Your task to perform on an android device: Search for the new nike air max 270 on Nike.com Image 0: 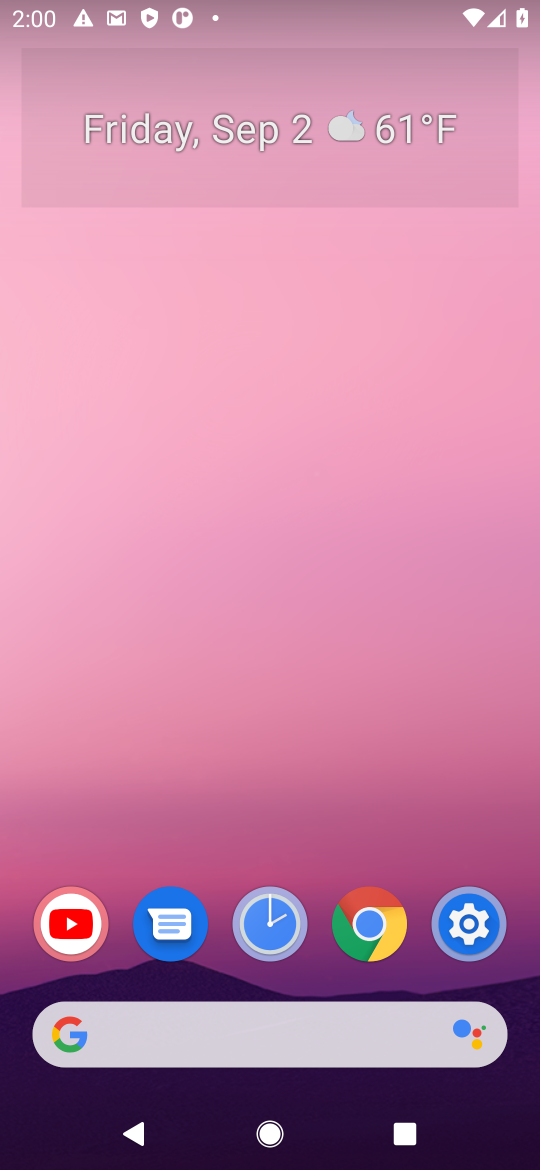
Step 0: press home button
Your task to perform on an android device: Search for the new nike air max 270 on Nike.com Image 1: 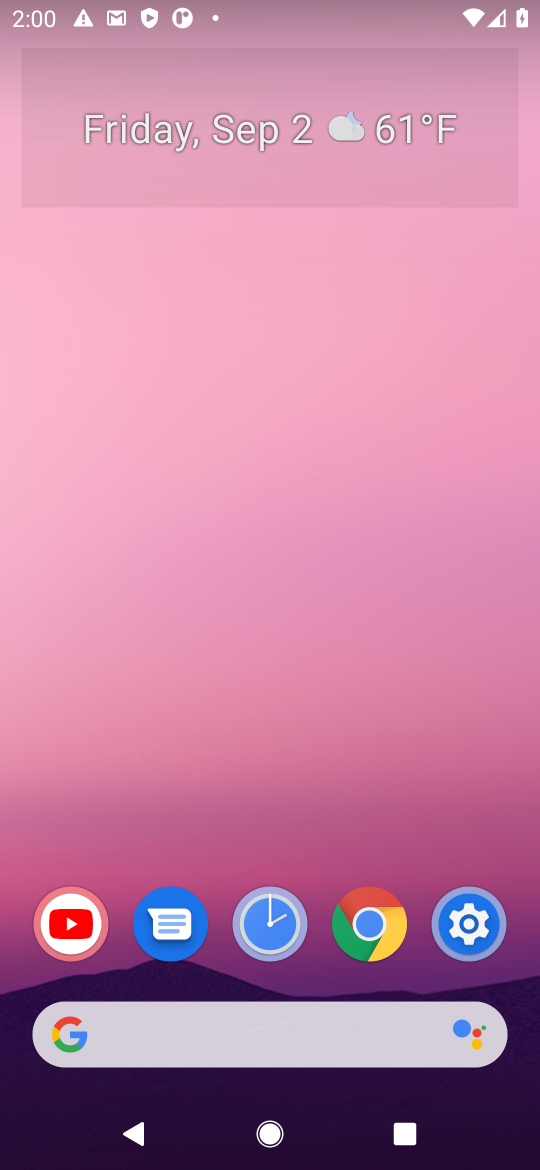
Step 1: click (424, 1037)
Your task to perform on an android device: Search for the new nike air max 270 on Nike.com Image 2: 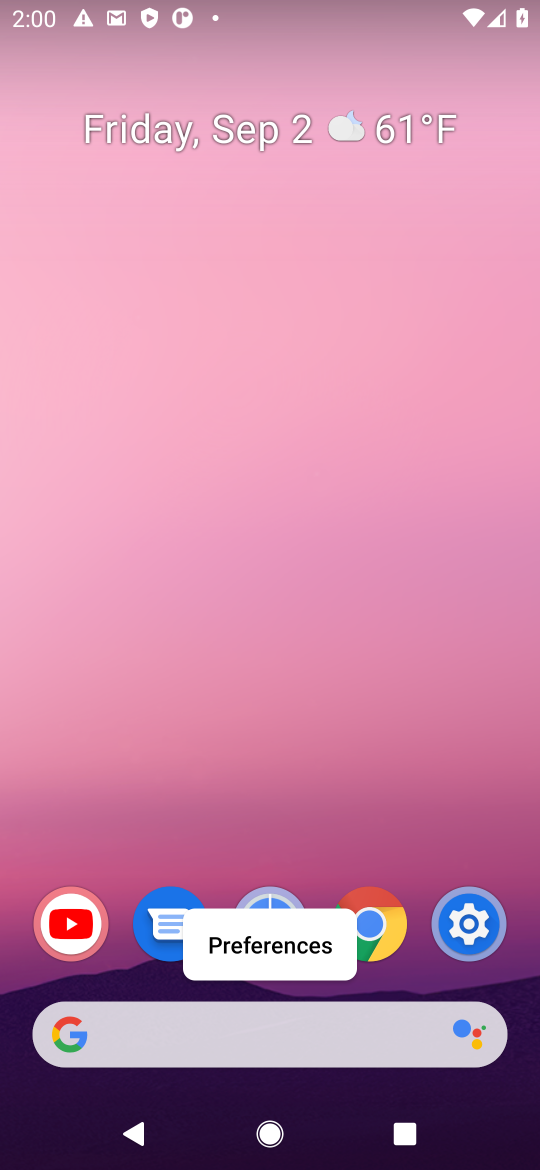
Step 2: click (308, 1027)
Your task to perform on an android device: Search for the new nike air max 270 on Nike.com Image 3: 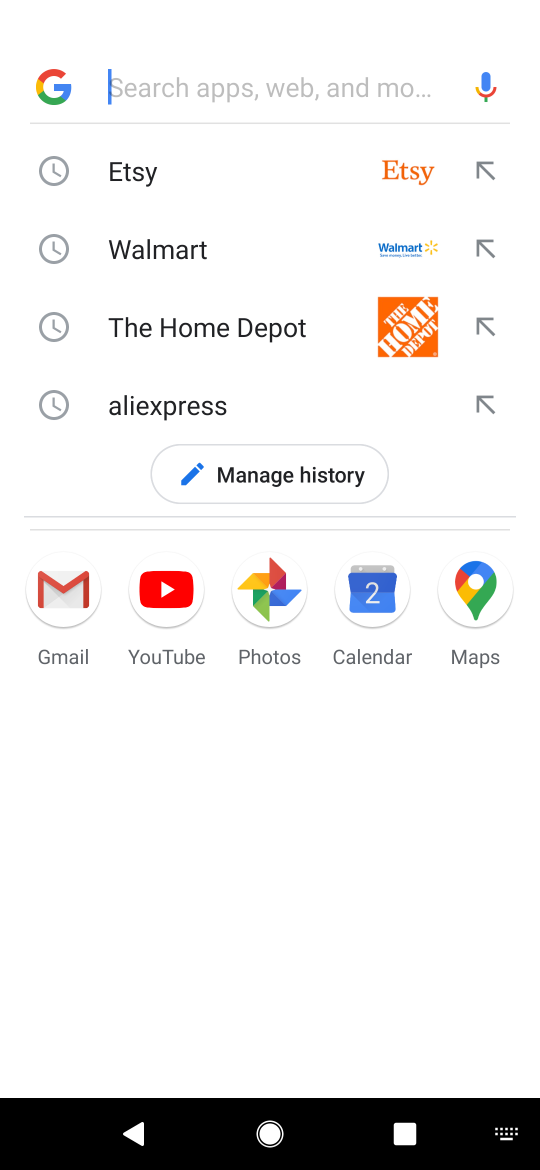
Step 3: press enter
Your task to perform on an android device: Search for the new nike air max 270 on Nike.com Image 4: 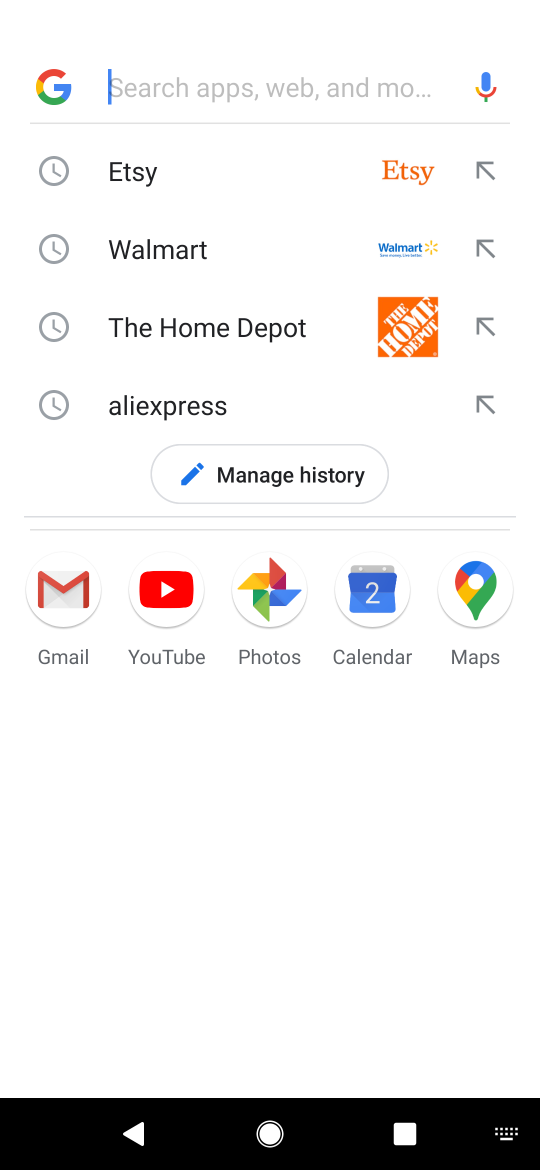
Step 4: type "nike.com"
Your task to perform on an android device: Search for the new nike air max 270 on Nike.com Image 5: 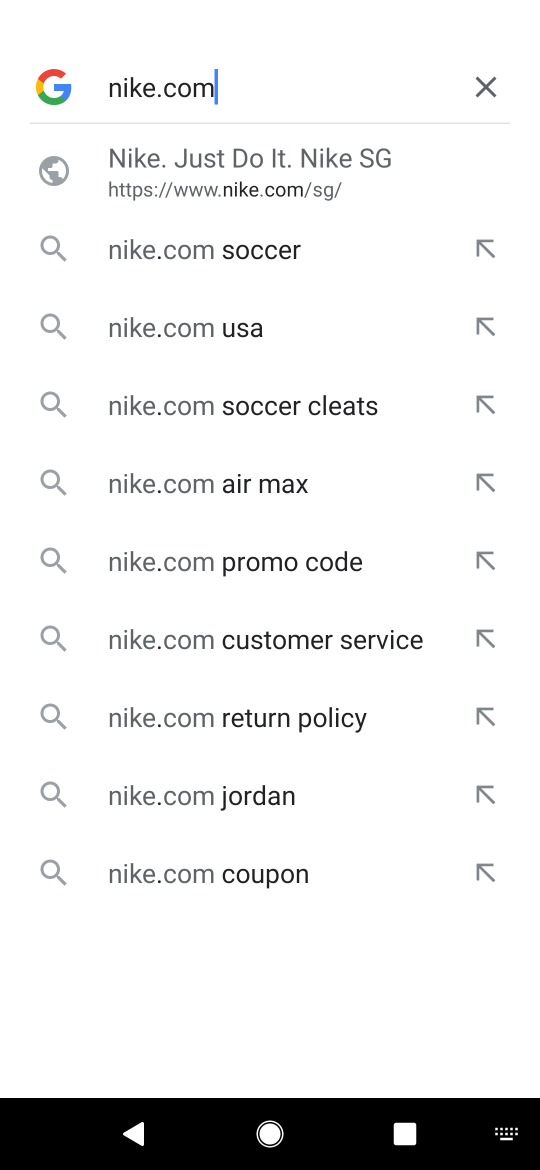
Step 5: click (300, 174)
Your task to perform on an android device: Search for the new nike air max 270 on Nike.com Image 6: 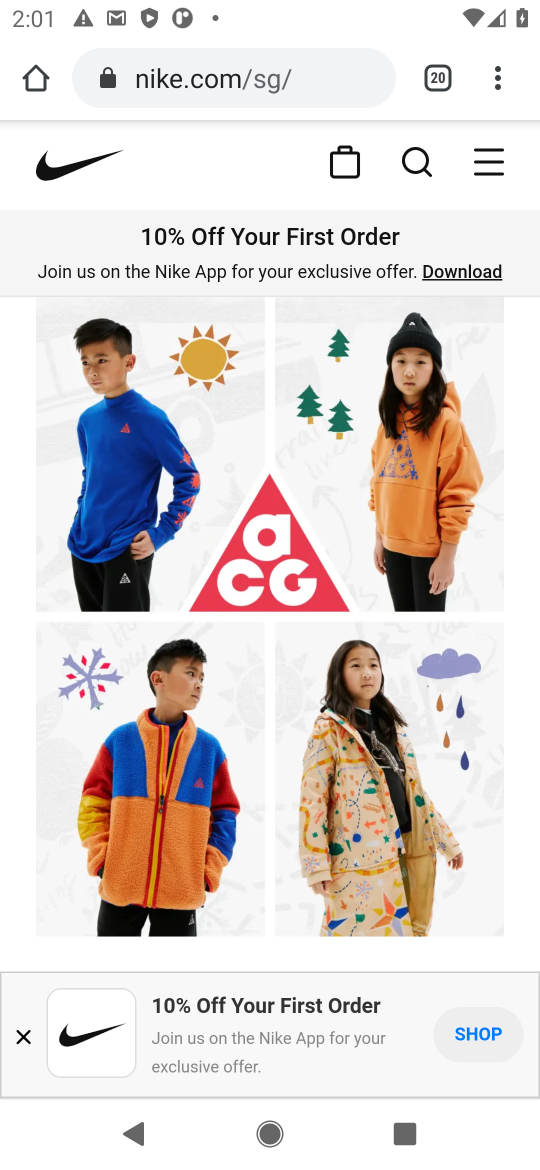
Step 6: click (410, 159)
Your task to perform on an android device: Search for the new nike air max 270 on Nike.com Image 7: 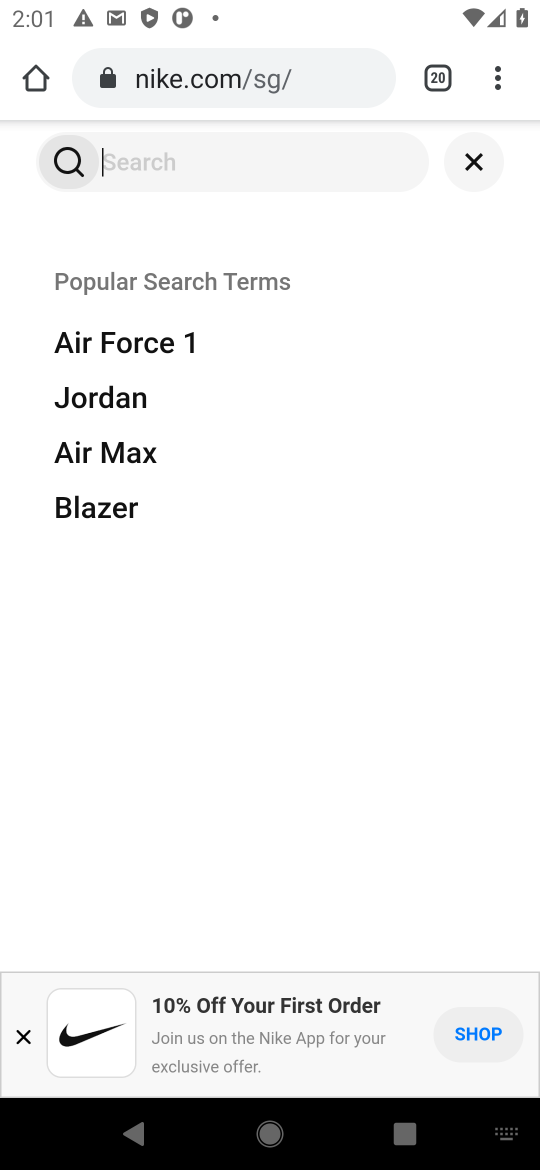
Step 7: type "nike air max 270"
Your task to perform on an android device: Search for the new nike air max 270 on Nike.com Image 8: 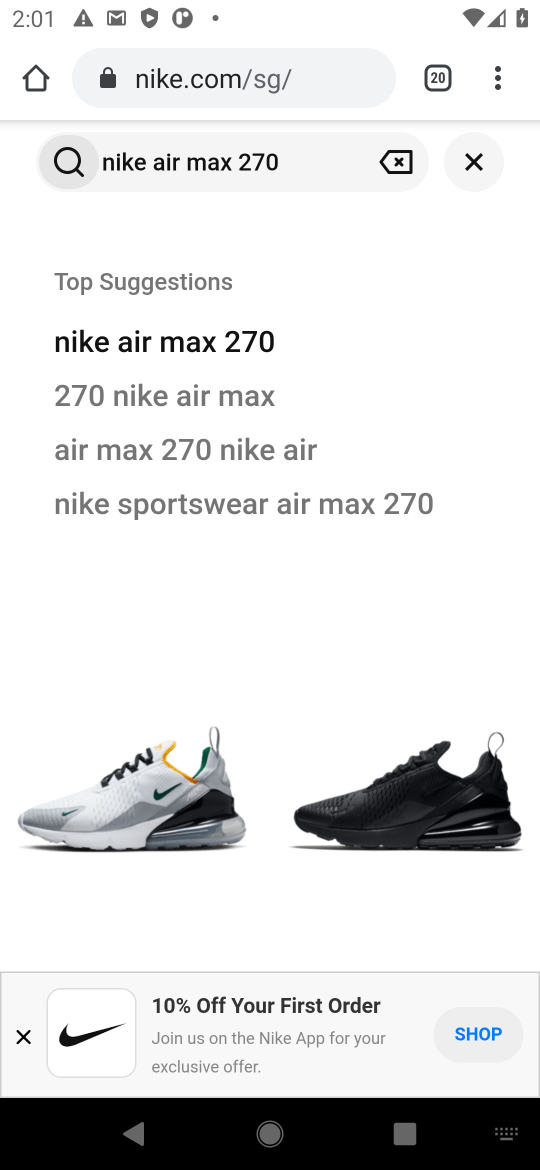
Step 8: click (219, 340)
Your task to perform on an android device: Search for the new nike air max 270 on Nike.com Image 9: 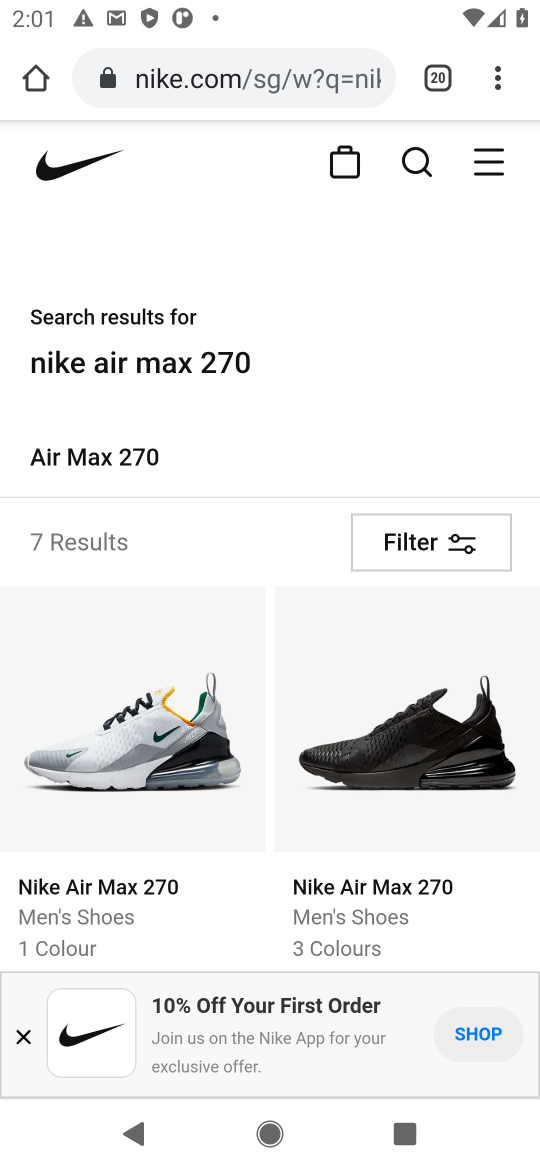
Step 9: task complete